Your task to perform on an android device: toggle wifi Image 0: 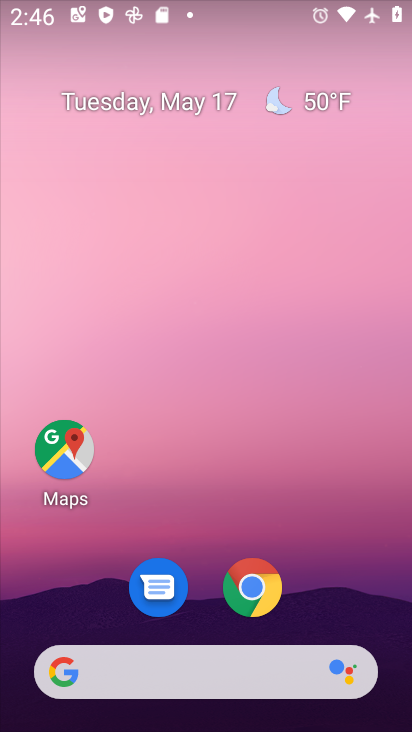
Step 0: drag from (379, 627) to (326, 0)
Your task to perform on an android device: toggle wifi Image 1: 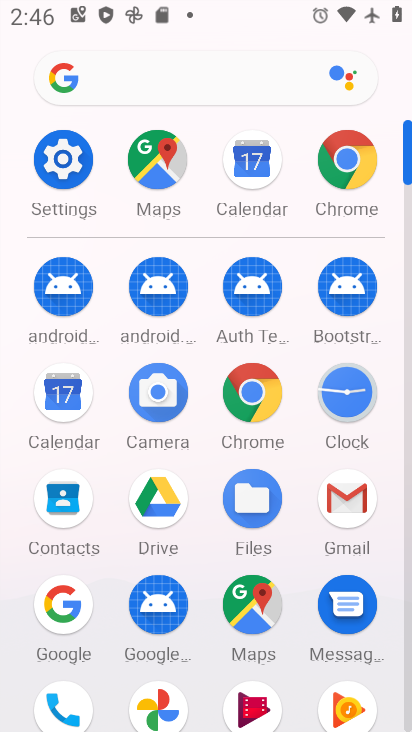
Step 1: click (40, 182)
Your task to perform on an android device: toggle wifi Image 2: 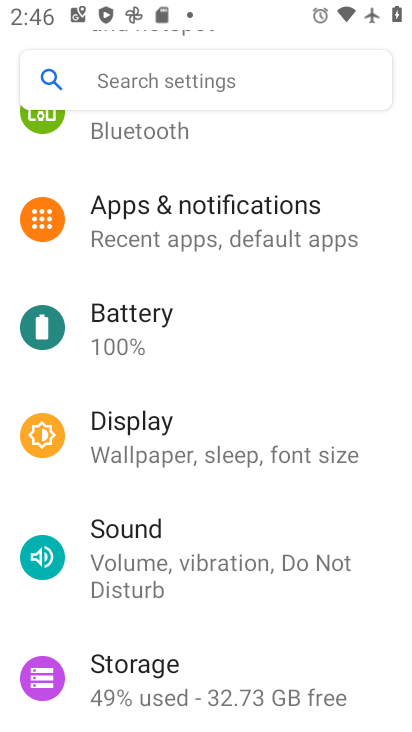
Step 2: drag from (199, 202) to (315, 626)
Your task to perform on an android device: toggle wifi Image 3: 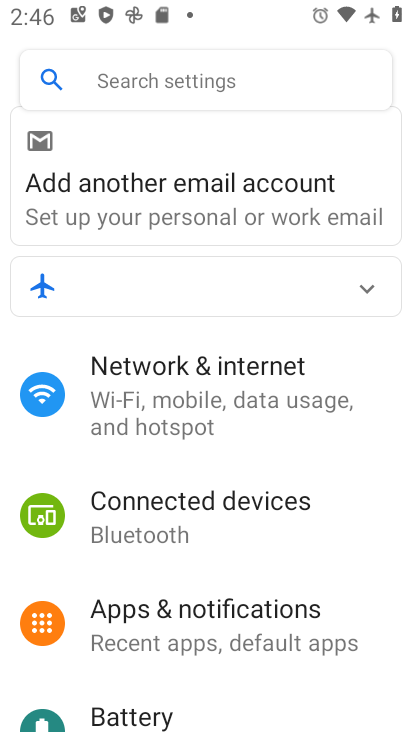
Step 3: click (214, 373)
Your task to perform on an android device: toggle wifi Image 4: 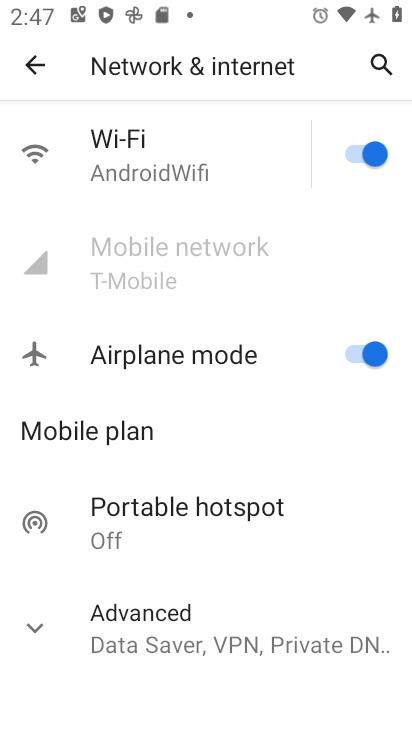
Step 4: click (340, 157)
Your task to perform on an android device: toggle wifi Image 5: 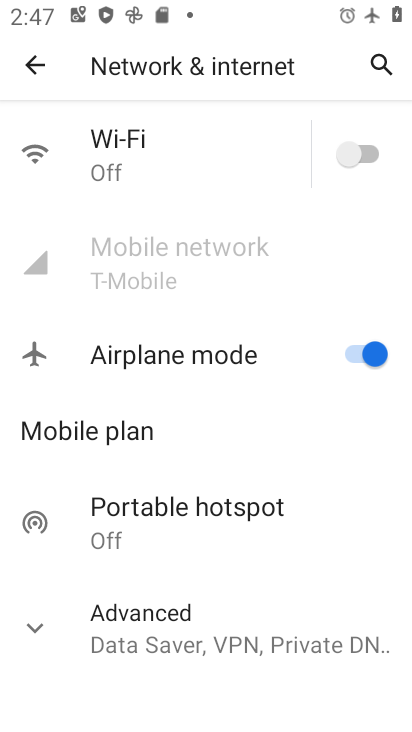
Step 5: task complete